Your task to perform on an android device: turn on javascript in the chrome app Image 0: 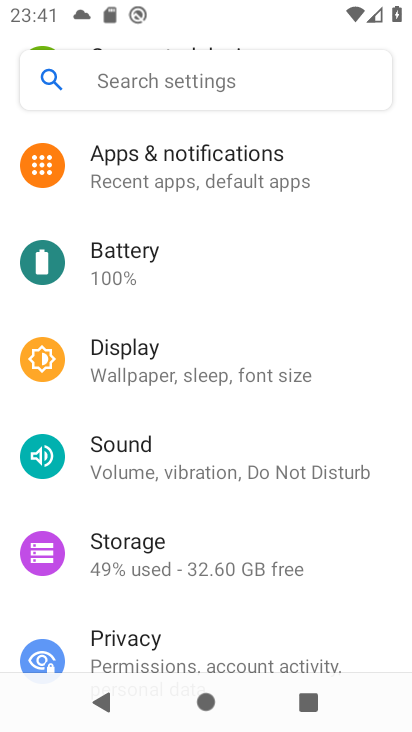
Step 0: press home button
Your task to perform on an android device: turn on javascript in the chrome app Image 1: 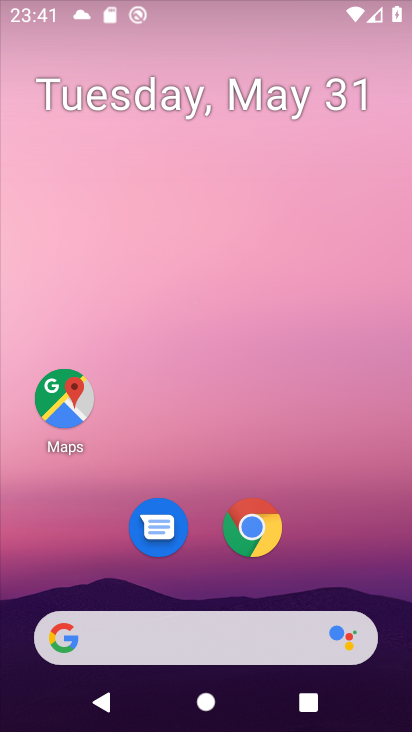
Step 1: drag from (358, 539) to (210, 14)
Your task to perform on an android device: turn on javascript in the chrome app Image 2: 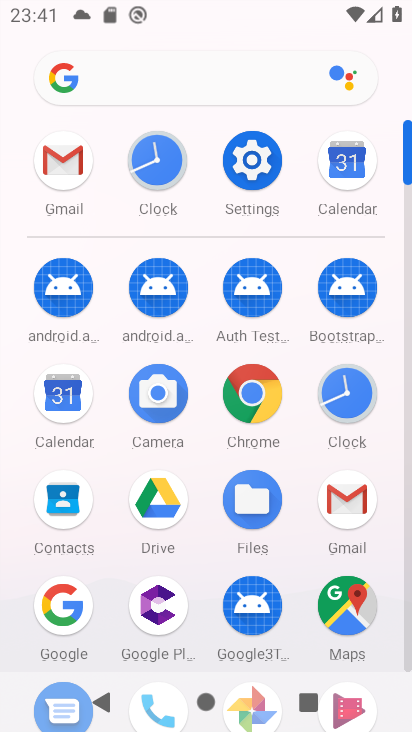
Step 2: click (258, 393)
Your task to perform on an android device: turn on javascript in the chrome app Image 3: 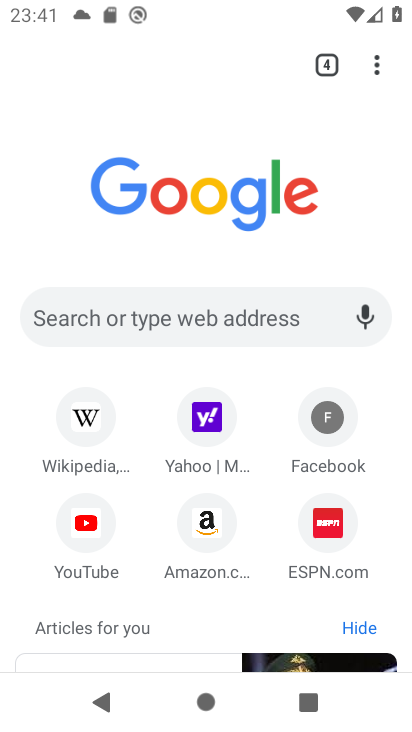
Step 3: click (376, 65)
Your task to perform on an android device: turn on javascript in the chrome app Image 4: 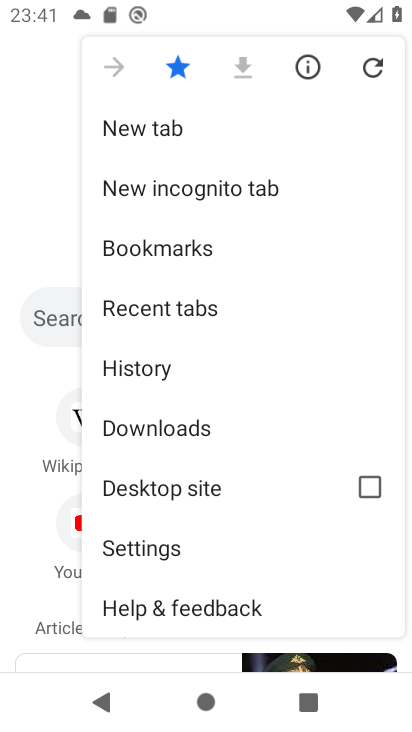
Step 4: drag from (223, 562) to (235, 134)
Your task to perform on an android device: turn on javascript in the chrome app Image 5: 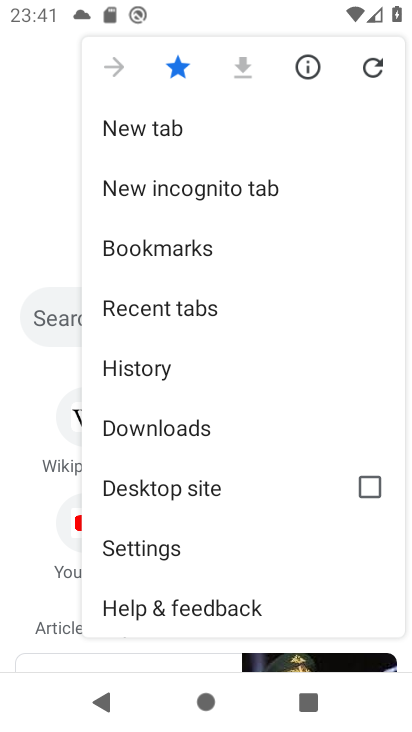
Step 5: click (160, 531)
Your task to perform on an android device: turn on javascript in the chrome app Image 6: 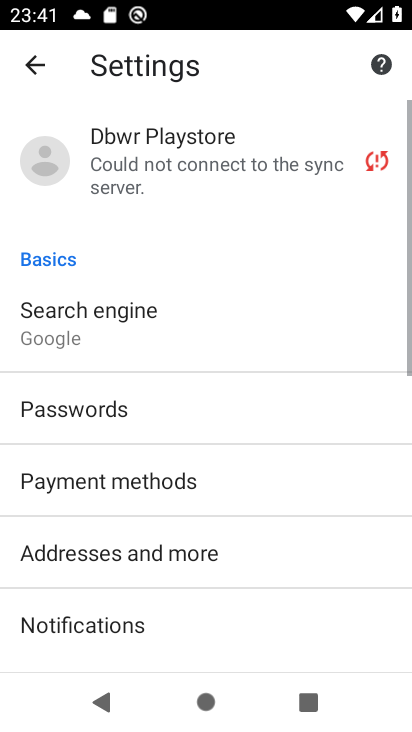
Step 6: drag from (282, 513) to (302, 23)
Your task to perform on an android device: turn on javascript in the chrome app Image 7: 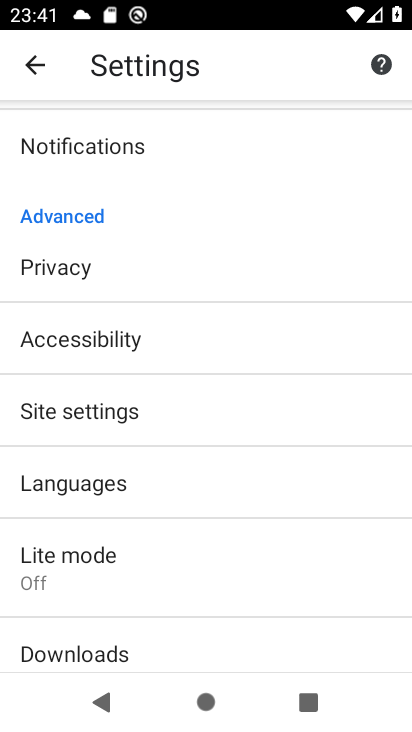
Step 7: click (182, 484)
Your task to perform on an android device: turn on javascript in the chrome app Image 8: 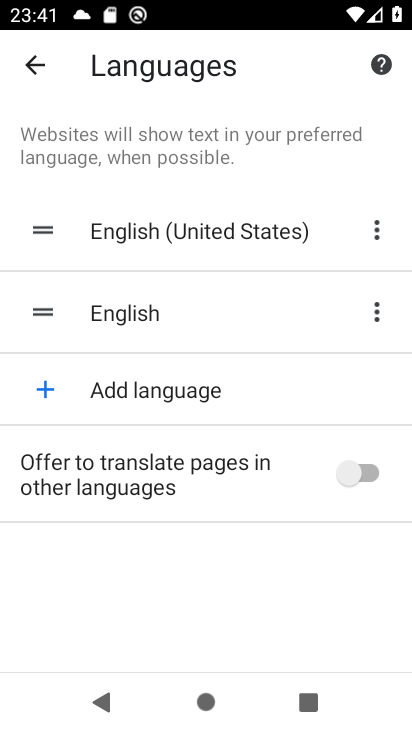
Step 8: click (37, 60)
Your task to perform on an android device: turn on javascript in the chrome app Image 9: 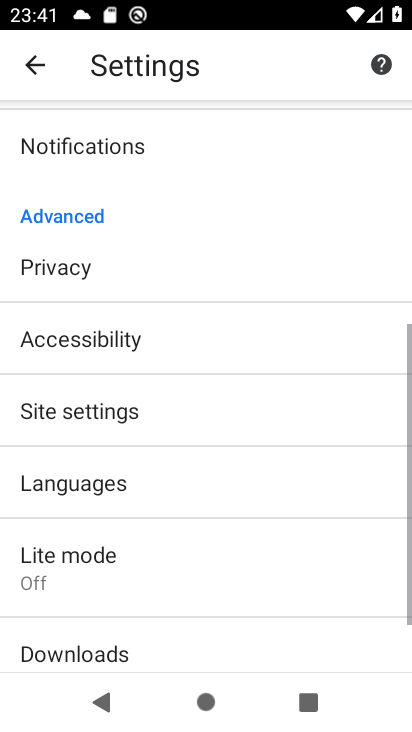
Step 9: click (142, 384)
Your task to perform on an android device: turn on javascript in the chrome app Image 10: 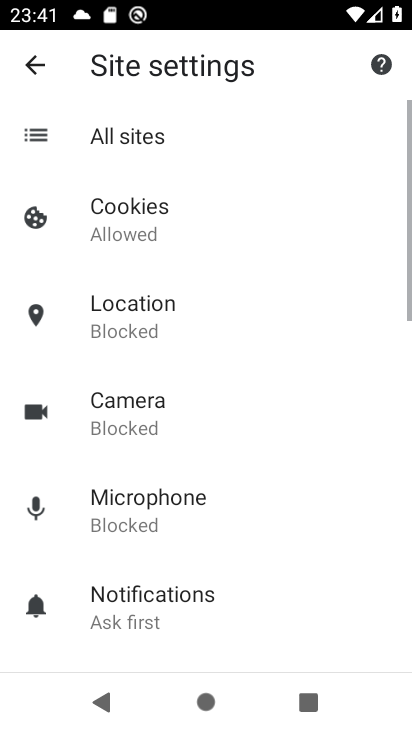
Step 10: drag from (203, 531) to (212, 146)
Your task to perform on an android device: turn on javascript in the chrome app Image 11: 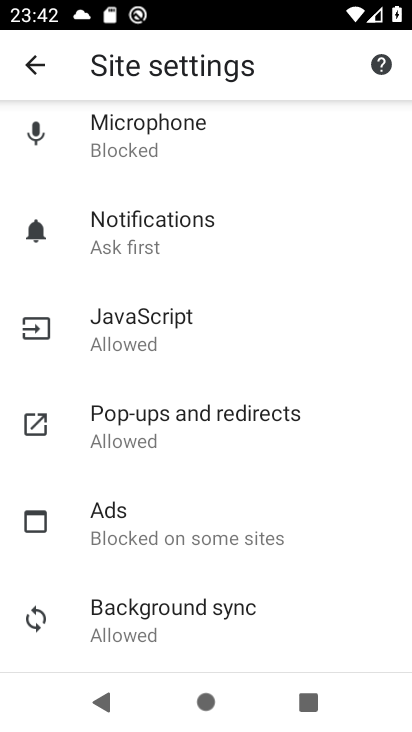
Step 11: click (175, 316)
Your task to perform on an android device: turn on javascript in the chrome app Image 12: 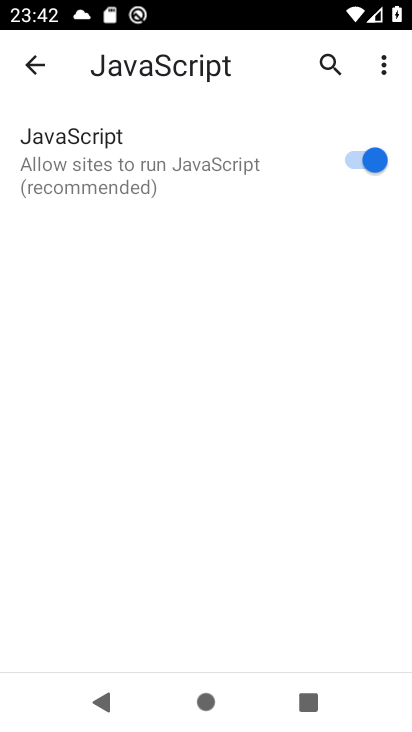
Step 12: task complete